Your task to perform on an android device: turn pop-ups off in chrome Image 0: 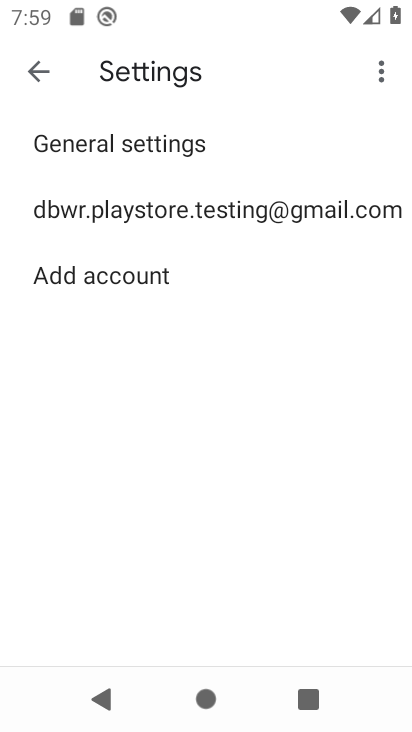
Step 0: press back button
Your task to perform on an android device: turn pop-ups off in chrome Image 1: 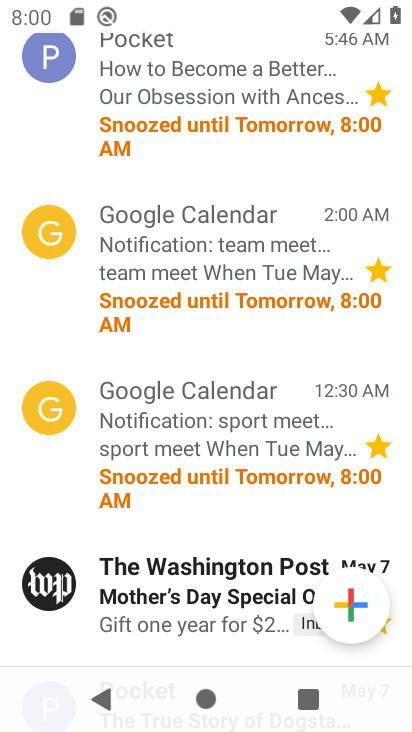
Step 1: press back button
Your task to perform on an android device: turn pop-ups off in chrome Image 2: 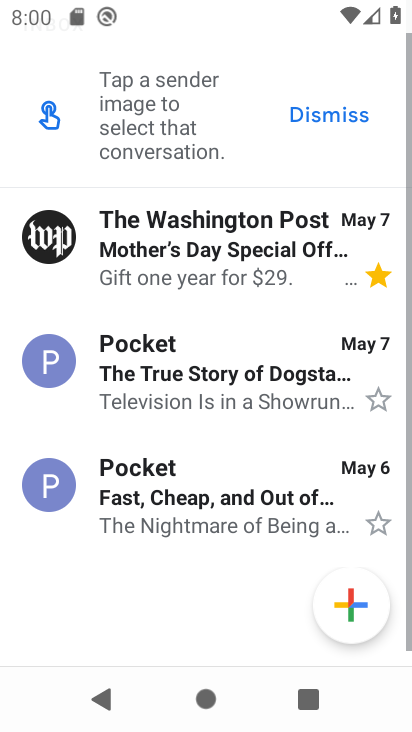
Step 2: press back button
Your task to perform on an android device: turn pop-ups off in chrome Image 3: 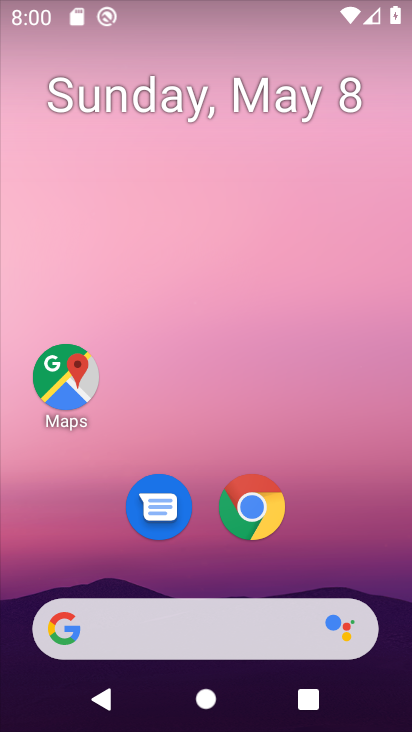
Step 3: click (239, 498)
Your task to perform on an android device: turn pop-ups off in chrome Image 4: 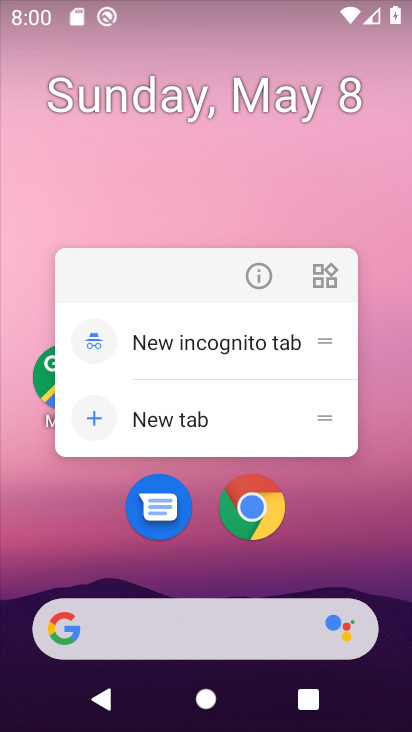
Step 4: click (242, 489)
Your task to perform on an android device: turn pop-ups off in chrome Image 5: 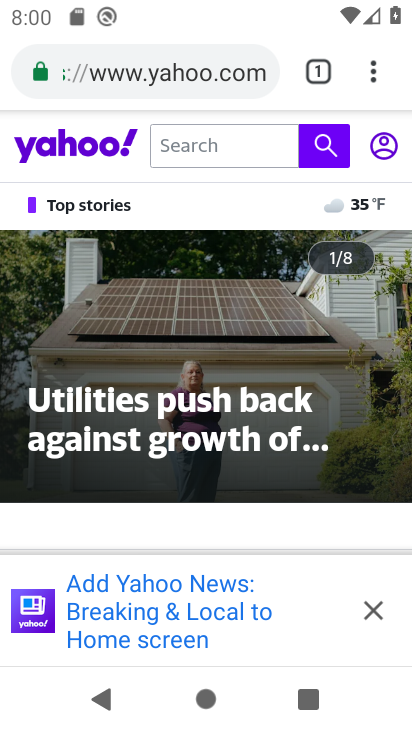
Step 5: click (378, 78)
Your task to perform on an android device: turn pop-ups off in chrome Image 6: 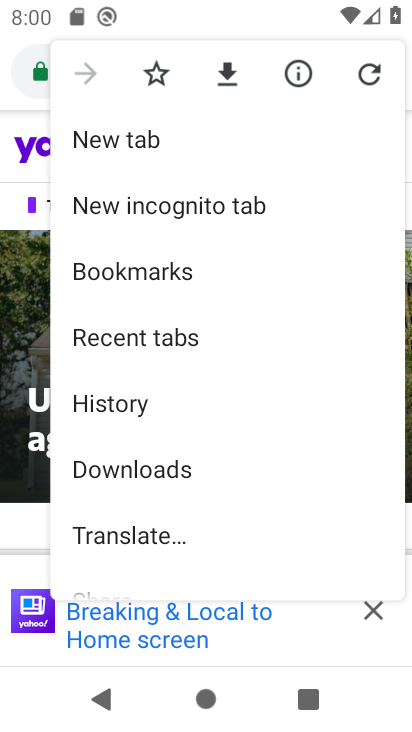
Step 6: drag from (127, 547) to (209, 293)
Your task to perform on an android device: turn pop-ups off in chrome Image 7: 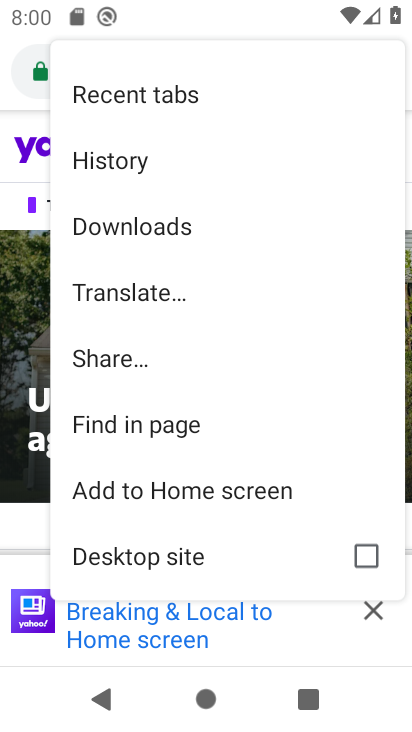
Step 7: drag from (146, 551) to (196, 280)
Your task to perform on an android device: turn pop-ups off in chrome Image 8: 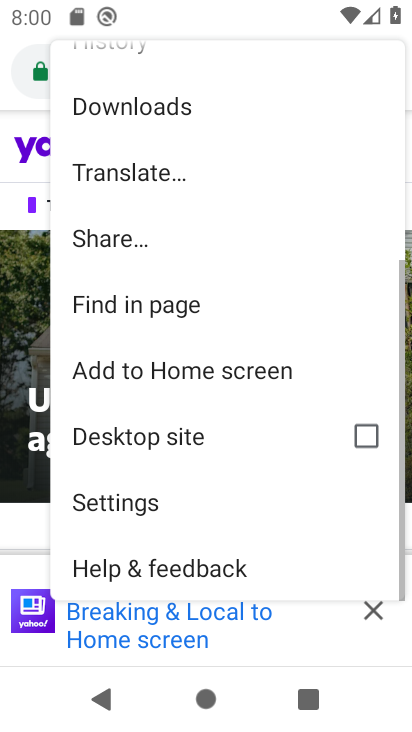
Step 8: click (142, 495)
Your task to perform on an android device: turn pop-ups off in chrome Image 9: 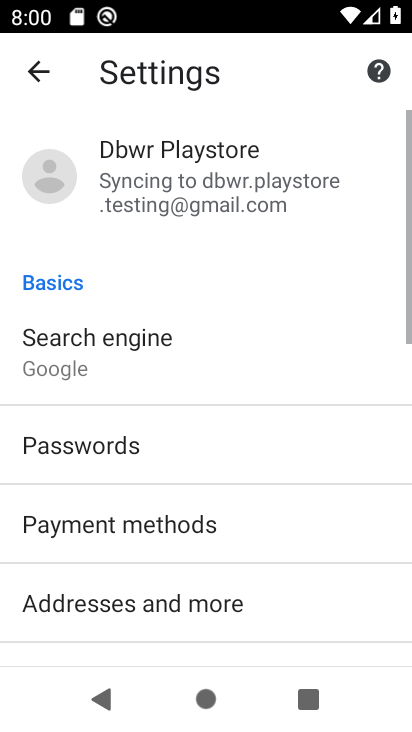
Step 9: drag from (198, 596) to (284, 306)
Your task to perform on an android device: turn pop-ups off in chrome Image 10: 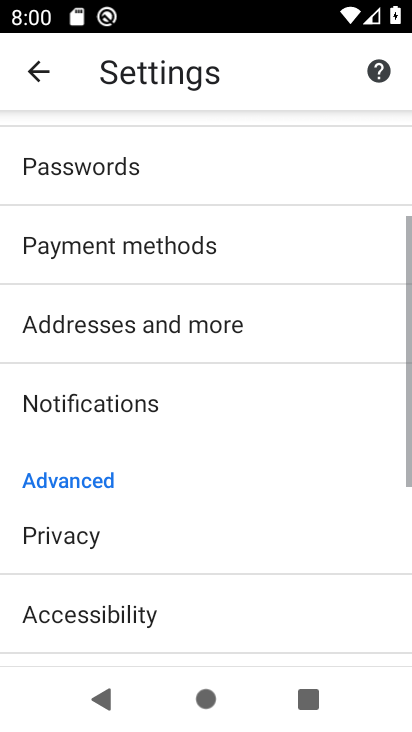
Step 10: drag from (261, 573) to (309, 324)
Your task to perform on an android device: turn pop-ups off in chrome Image 11: 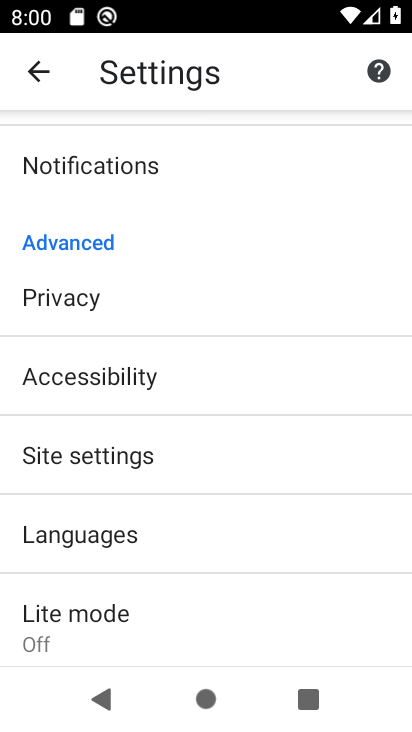
Step 11: click (187, 464)
Your task to perform on an android device: turn pop-ups off in chrome Image 12: 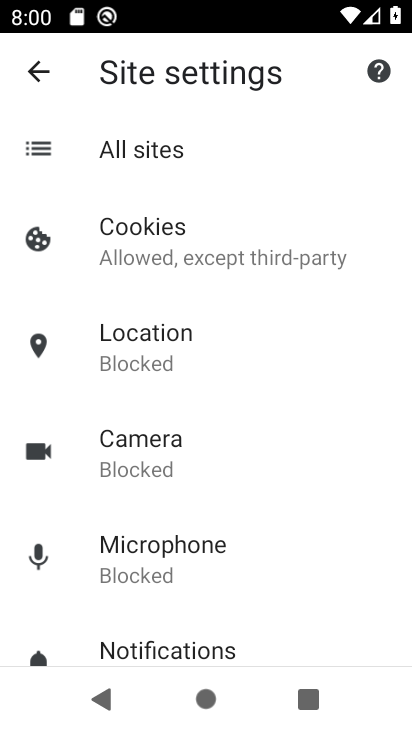
Step 12: drag from (210, 555) to (285, 216)
Your task to perform on an android device: turn pop-ups off in chrome Image 13: 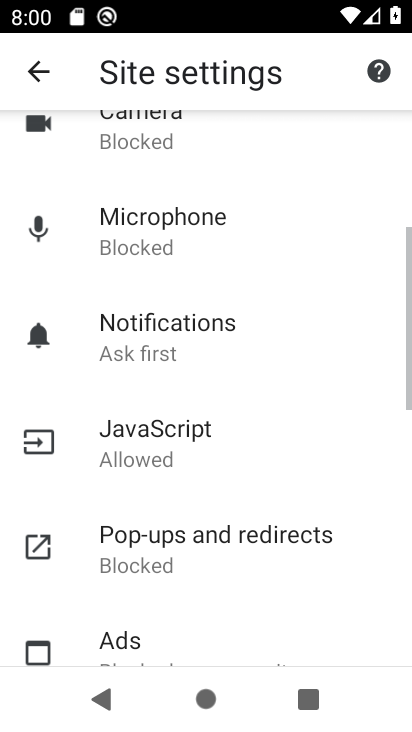
Step 13: click (228, 537)
Your task to perform on an android device: turn pop-ups off in chrome Image 14: 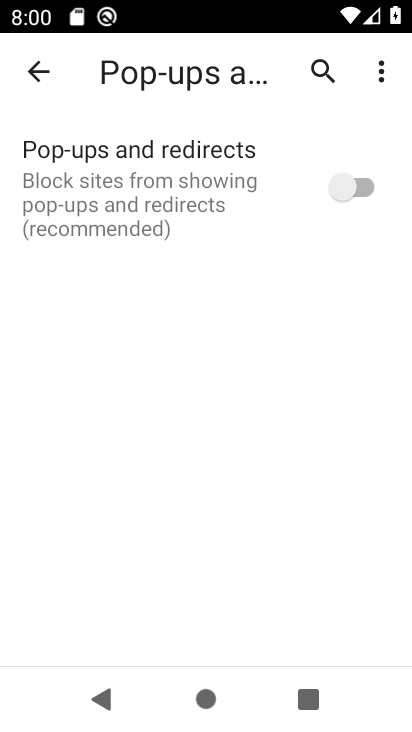
Step 14: task complete